Your task to perform on an android device: snooze an email in the gmail app Image 0: 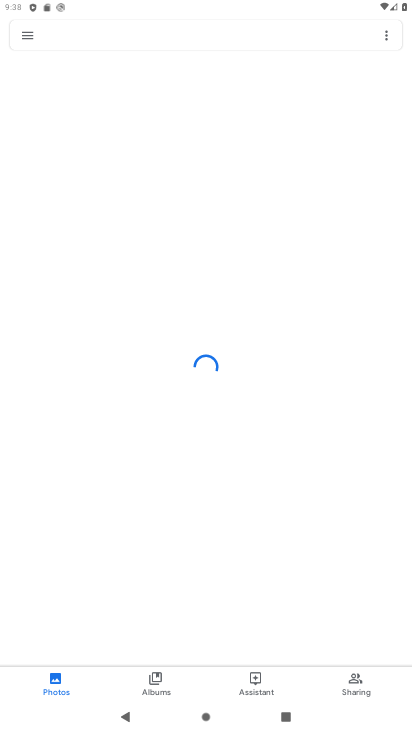
Step 0: press home button
Your task to perform on an android device: snooze an email in the gmail app Image 1: 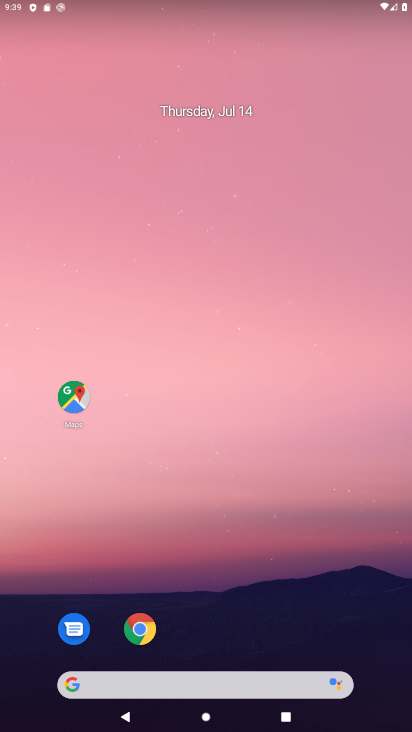
Step 1: drag from (217, 640) to (230, 147)
Your task to perform on an android device: snooze an email in the gmail app Image 2: 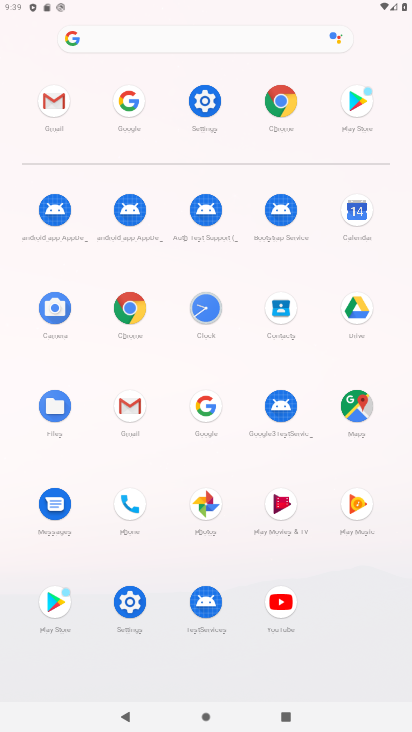
Step 2: click (128, 407)
Your task to perform on an android device: snooze an email in the gmail app Image 3: 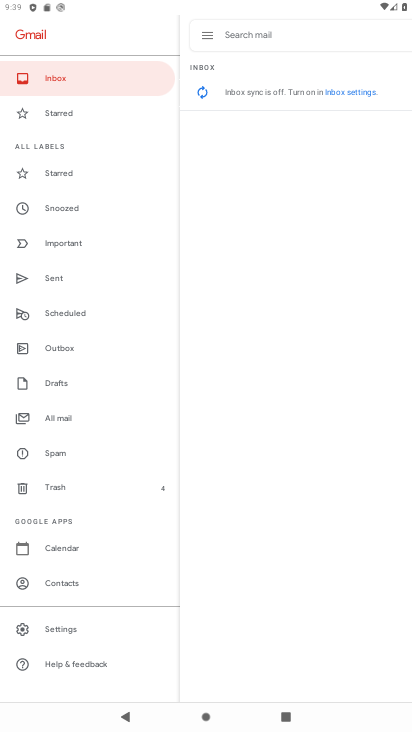
Step 3: click (53, 418)
Your task to perform on an android device: snooze an email in the gmail app Image 4: 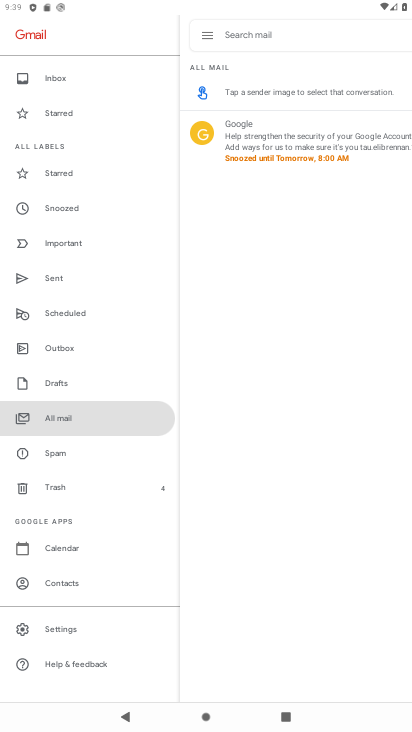
Step 4: click (271, 143)
Your task to perform on an android device: snooze an email in the gmail app Image 5: 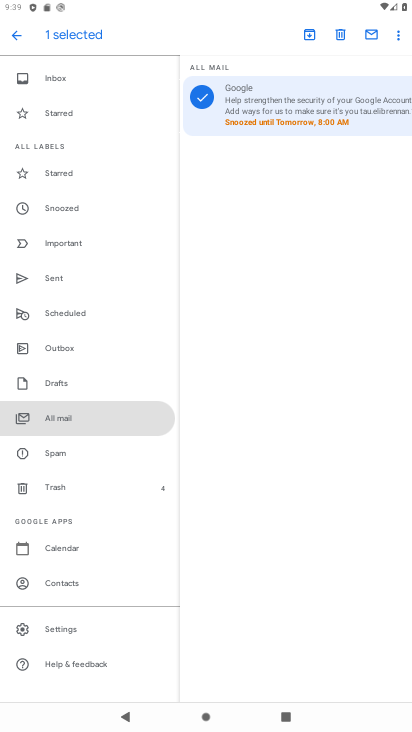
Step 5: click (394, 35)
Your task to perform on an android device: snooze an email in the gmail app Image 6: 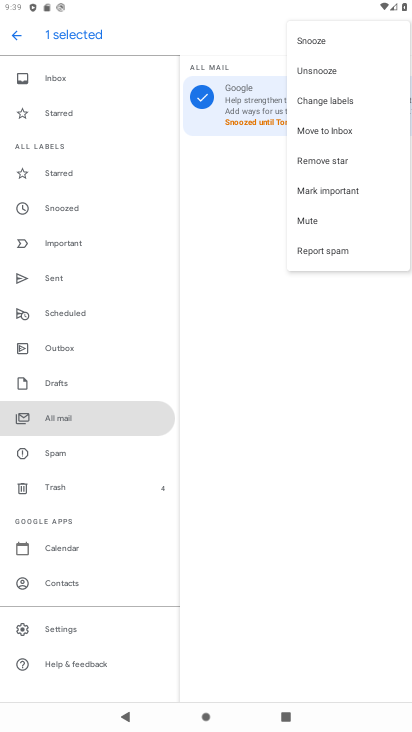
Step 6: click (233, 273)
Your task to perform on an android device: snooze an email in the gmail app Image 7: 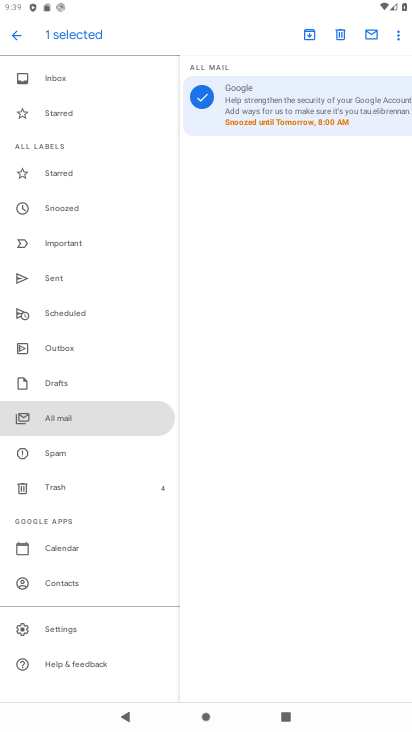
Step 7: task complete